Your task to perform on an android device: turn vacation reply on in the gmail app Image 0: 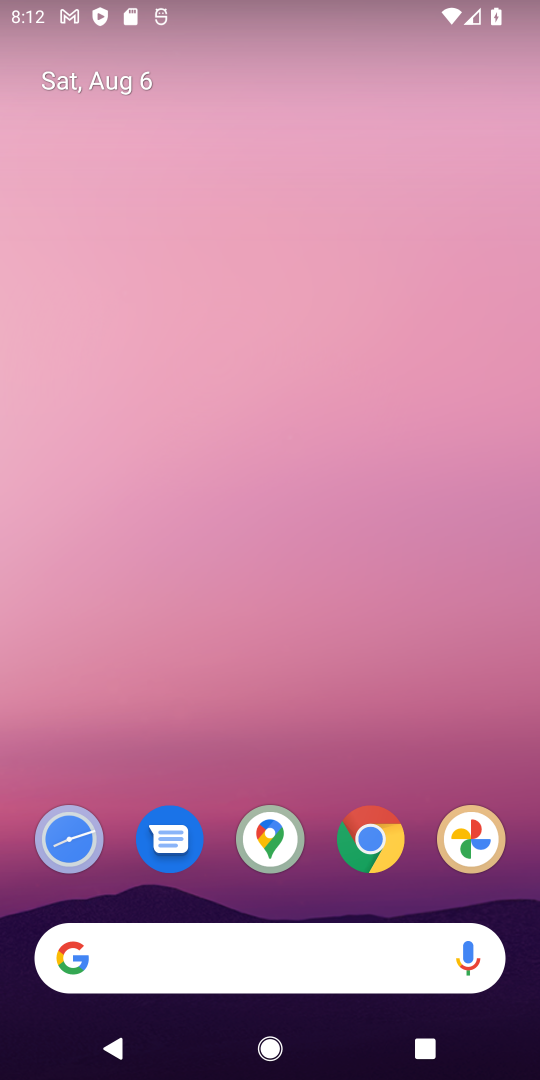
Step 0: drag from (319, 799) to (302, 6)
Your task to perform on an android device: turn vacation reply on in the gmail app Image 1: 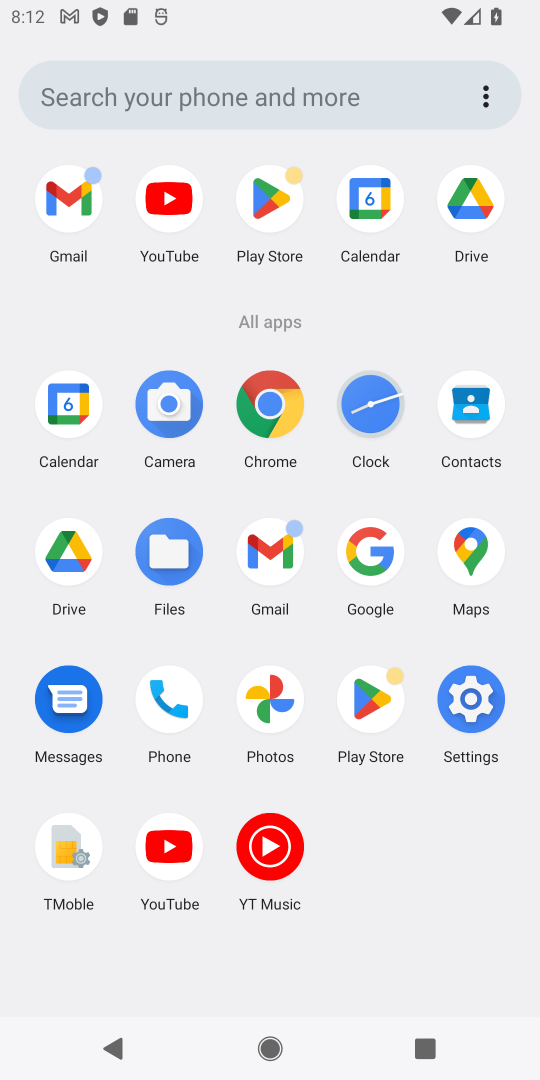
Step 1: click (282, 549)
Your task to perform on an android device: turn vacation reply on in the gmail app Image 2: 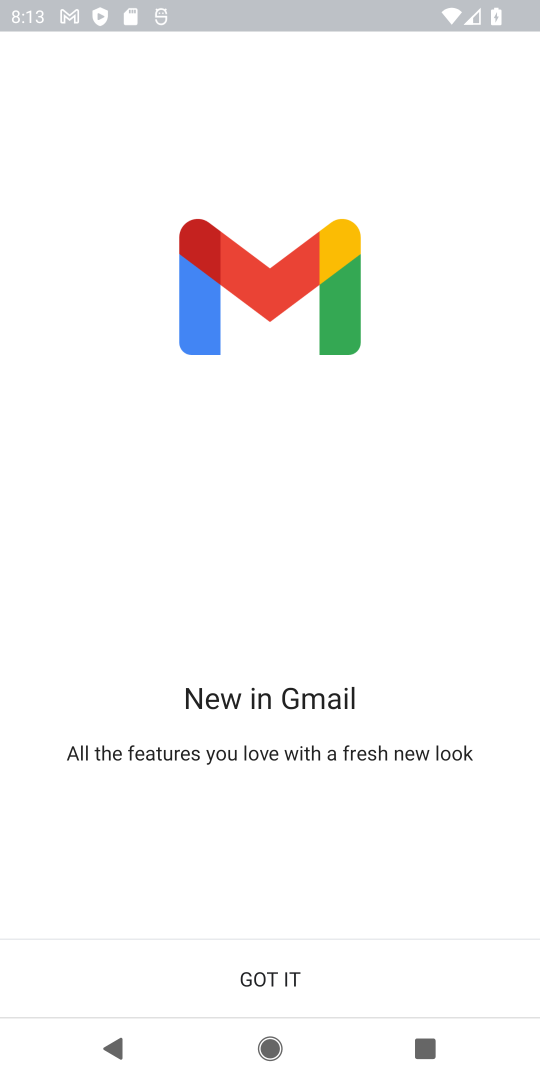
Step 2: click (357, 988)
Your task to perform on an android device: turn vacation reply on in the gmail app Image 3: 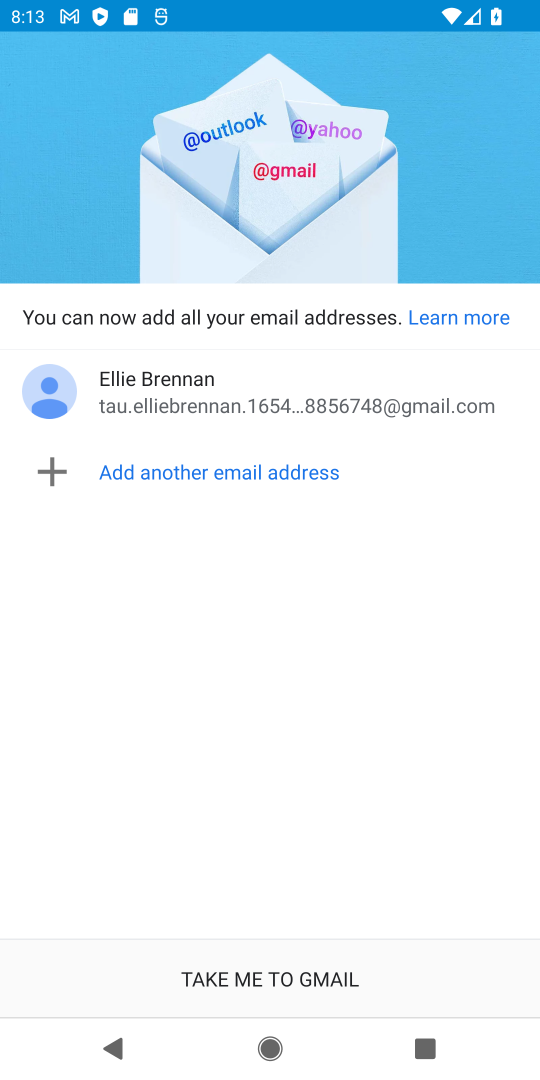
Step 3: click (357, 988)
Your task to perform on an android device: turn vacation reply on in the gmail app Image 4: 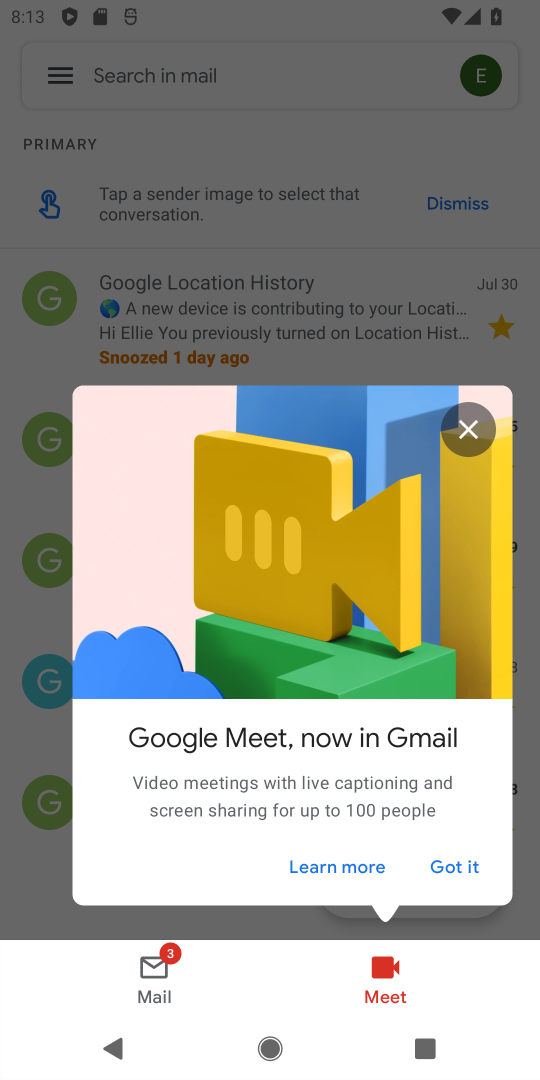
Step 4: click (475, 420)
Your task to perform on an android device: turn vacation reply on in the gmail app Image 5: 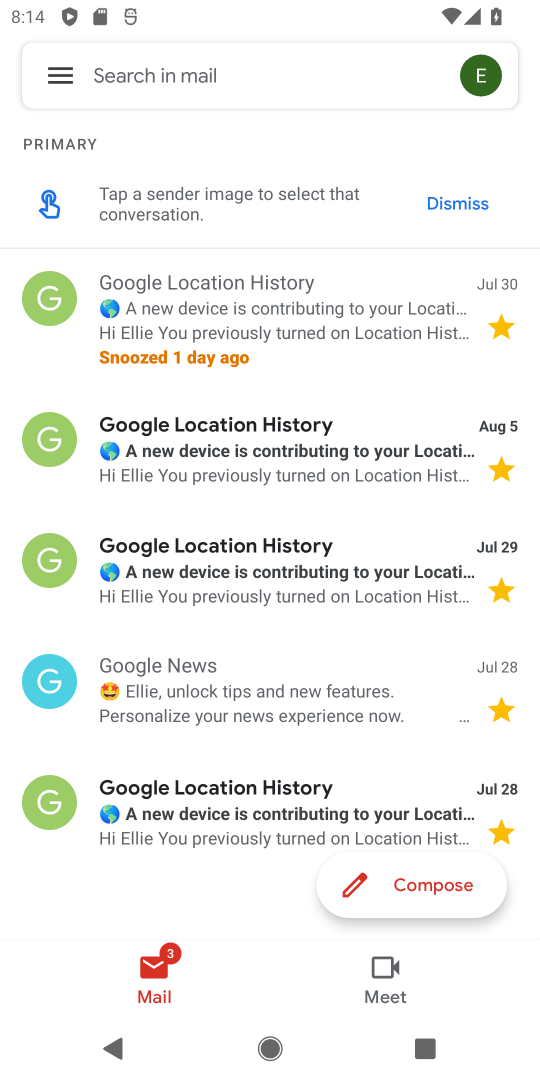
Step 5: click (53, 74)
Your task to perform on an android device: turn vacation reply on in the gmail app Image 6: 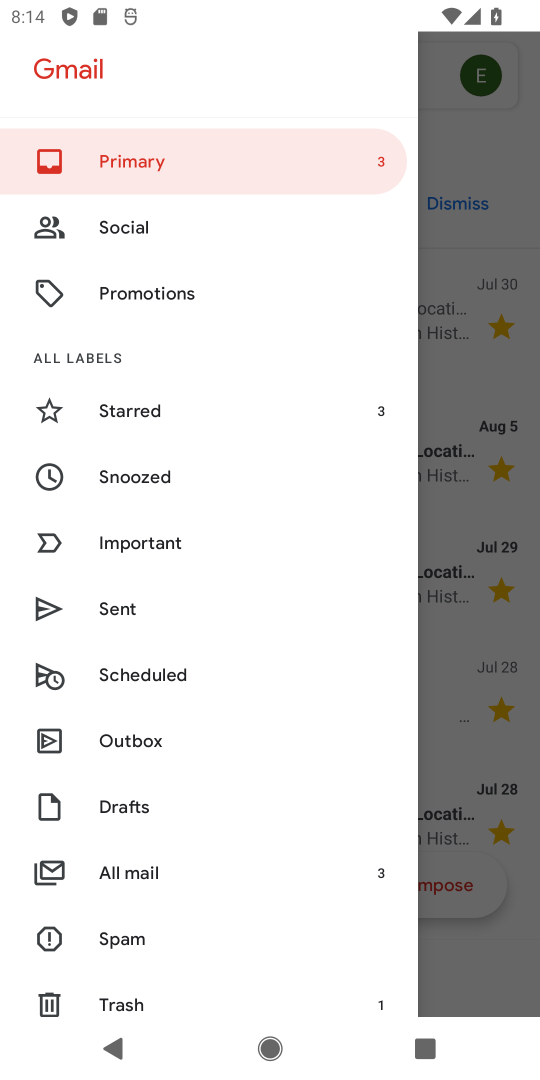
Step 6: drag from (198, 814) to (196, 307)
Your task to perform on an android device: turn vacation reply on in the gmail app Image 7: 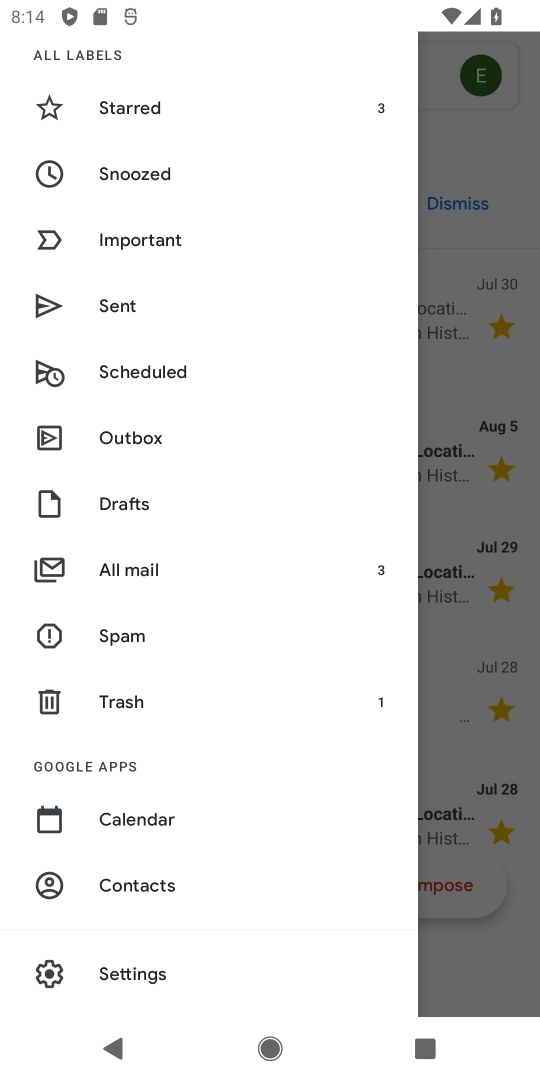
Step 7: click (118, 977)
Your task to perform on an android device: turn vacation reply on in the gmail app Image 8: 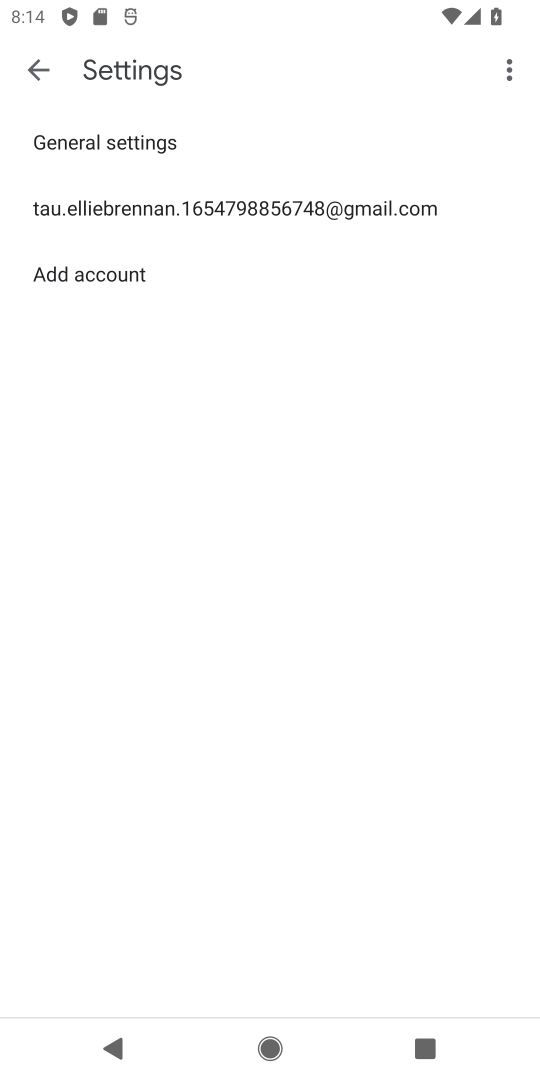
Step 8: click (200, 219)
Your task to perform on an android device: turn vacation reply on in the gmail app Image 9: 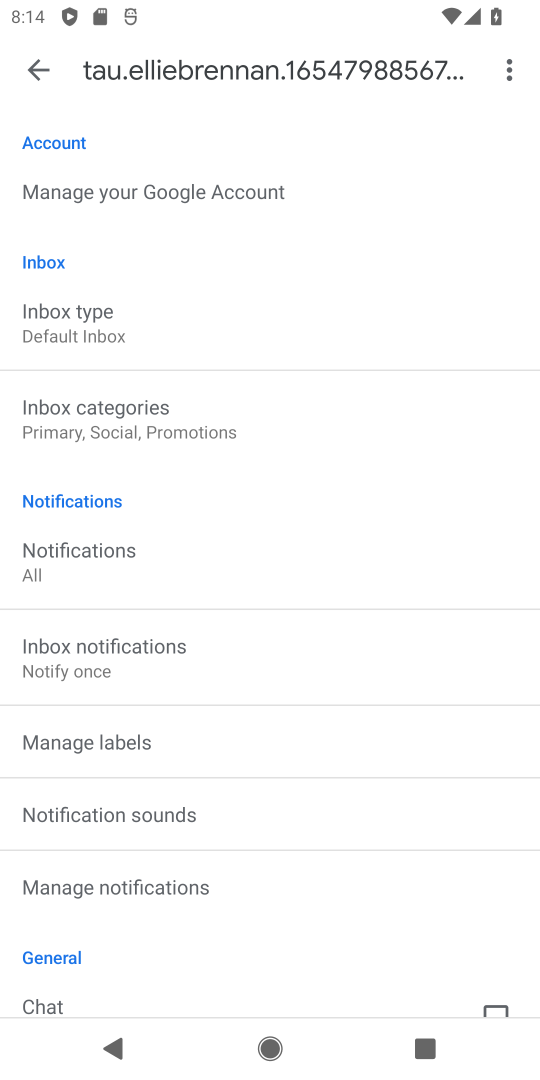
Step 9: task complete